Your task to perform on an android device: Open wifi settings Image 0: 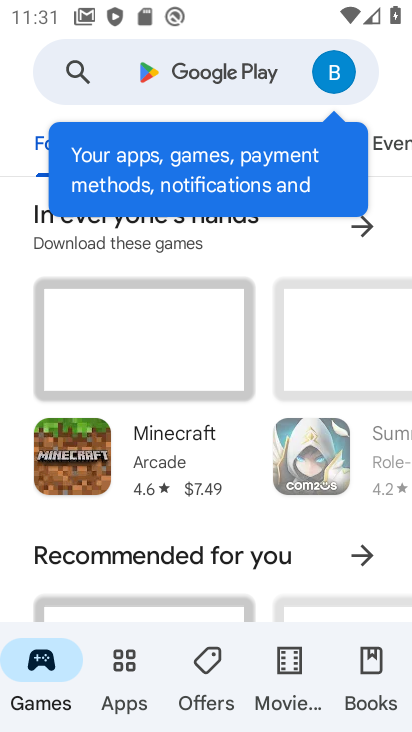
Step 0: press home button
Your task to perform on an android device: Open wifi settings Image 1: 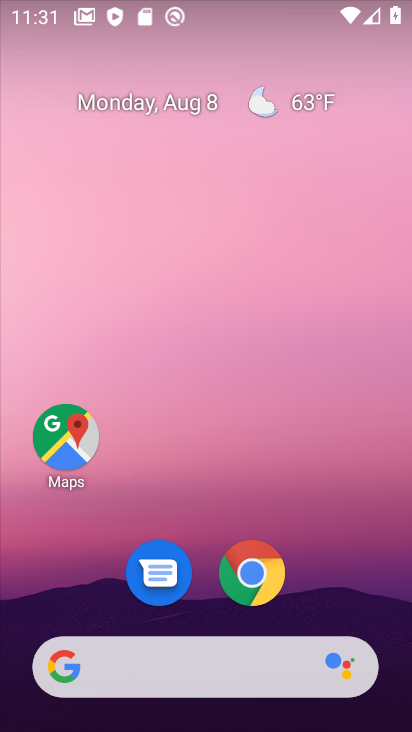
Step 1: drag from (196, 631) to (189, 234)
Your task to perform on an android device: Open wifi settings Image 2: 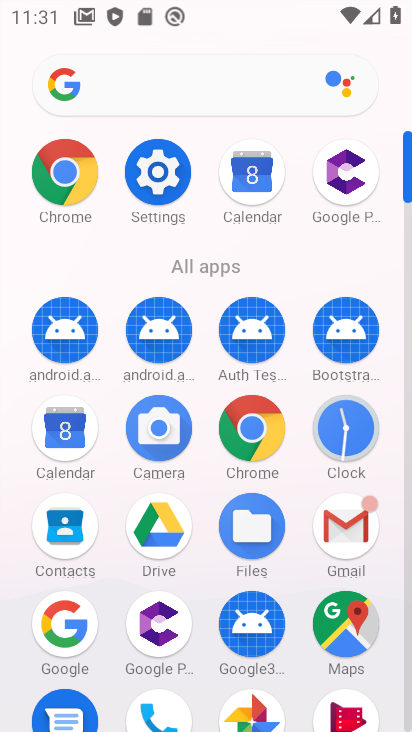
Step 2: click (146, 174)
Your task to perform on an android device: Open wifi settings Image 3: 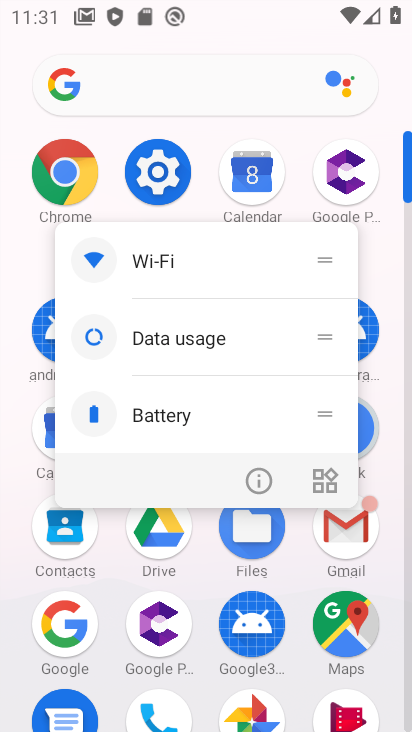
Step 3: click (152, 180)
Your task to perform on an android device: Open wifi settings Image 4: 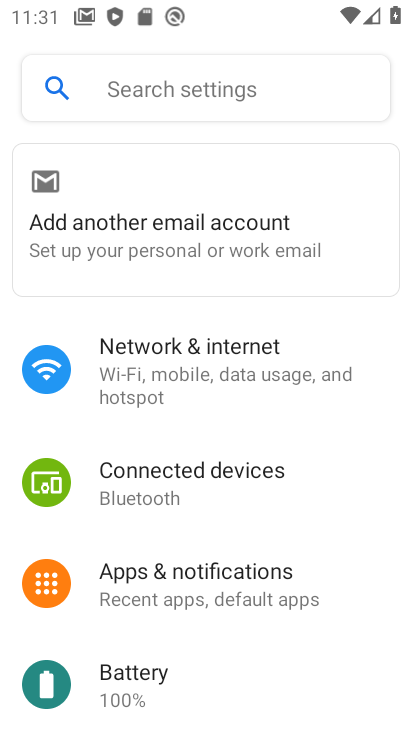
Step 4: click (227, 371)
Your task to perform on an android device: Open wifi settings Image 5: 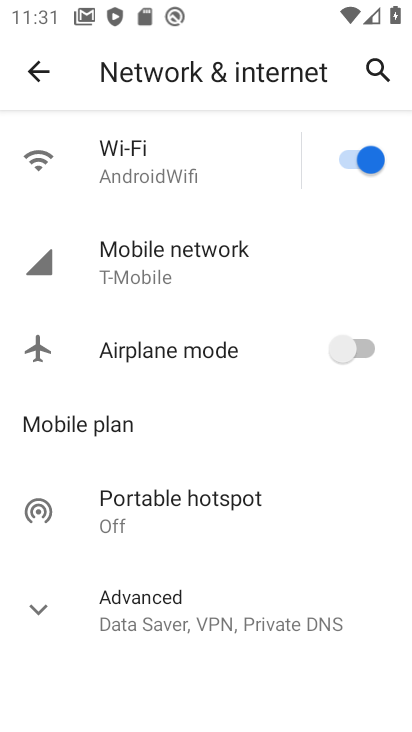
Step 5: click (145, 147)
Your task to perform on an android device: Open wifi settings Image 6: 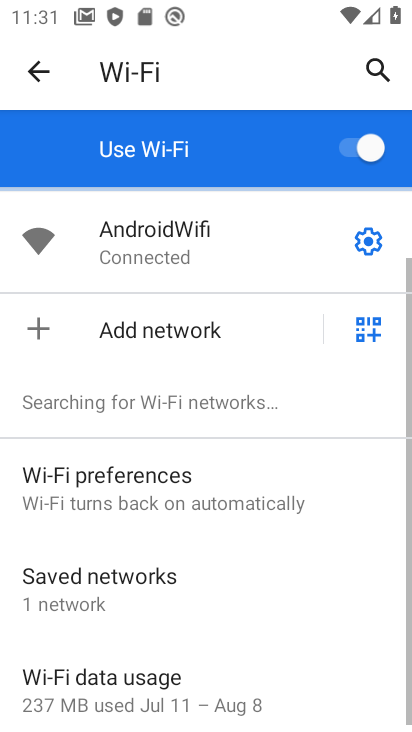
Step 6: click (359, 241)
Your task to perform on an android device: Open wifi settings Image 7: 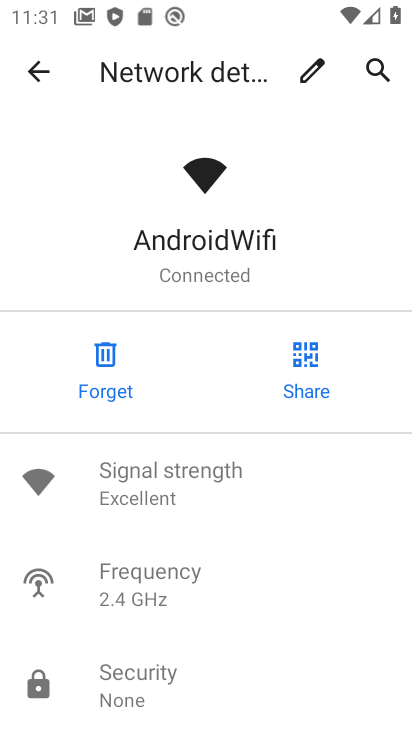
Step 7: task complete